Your task to perform on an android device: Search for vegetarian restaurants on Maps Image 0: 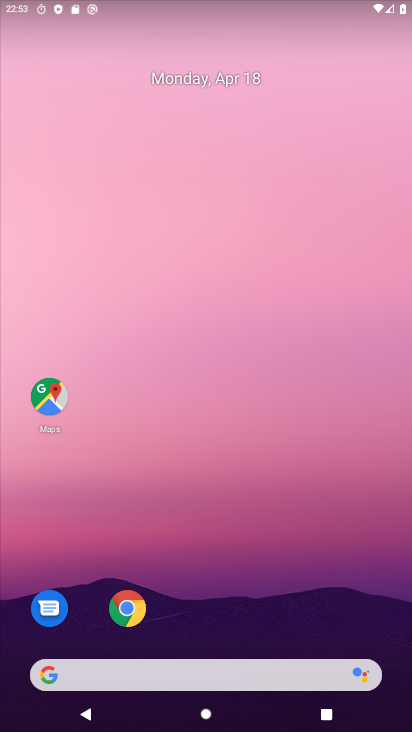
Step 0: click (46, 400)
Your task to perform on an android device: Search for vegetarian restaurants on Maps Image 1: 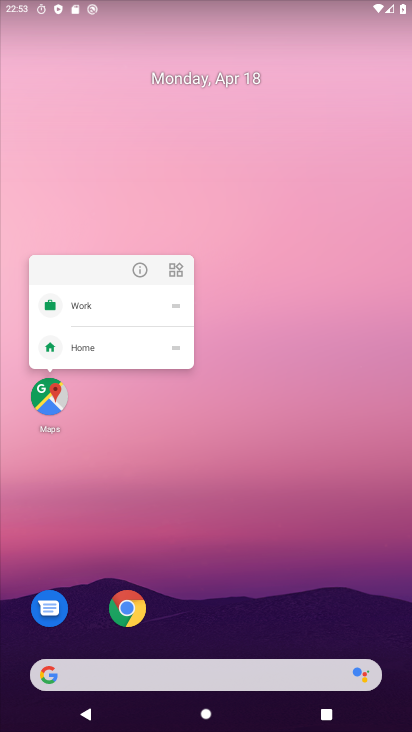
Step 1: click (188, 425)
Your task to perform on an android device: Search for vegetarian restaurants on Maps Image 2: 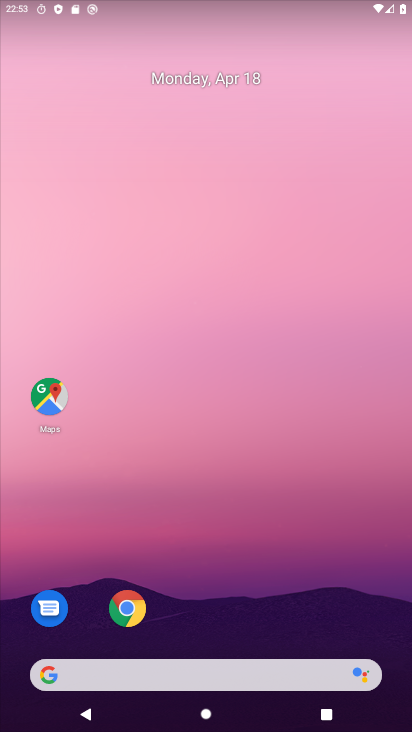
Step 2: click (47, 398)
Your task to perform on an android device: Search for vegetarian restaurants on Maps Image 3: 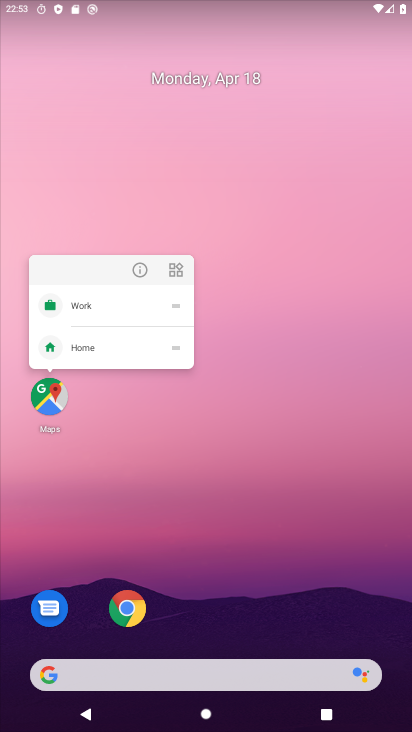
Step 3: click (138, 432)
Your task to perform on an android device: Search for vegetarian restaurants on Maps Image 4: 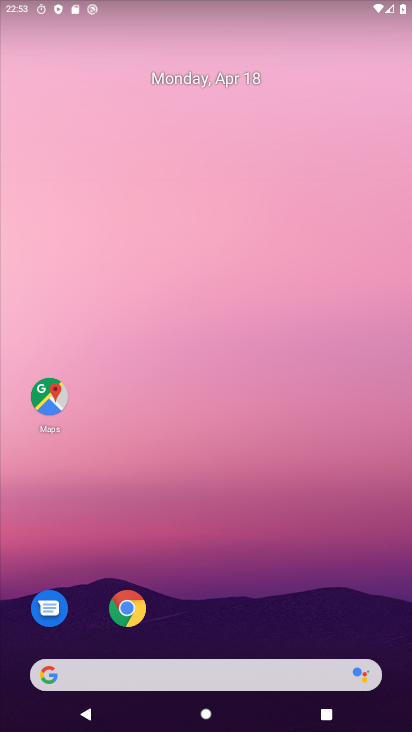
Step 4: click (49, 400)
Your task to perform on an android device: Search for vegetarian restaurants on Maps Image 5: 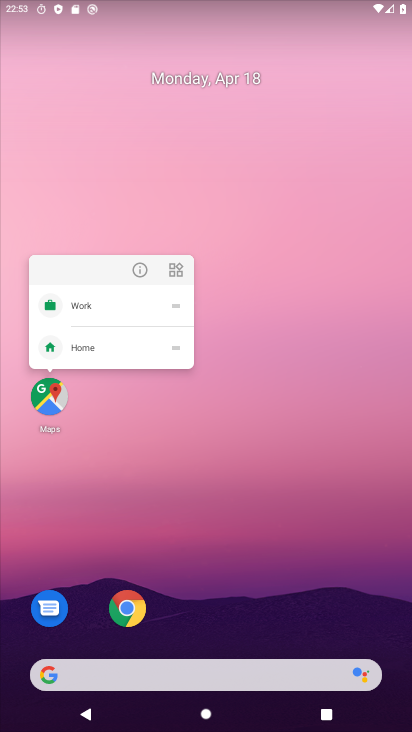
Step 5: click (173, 501)
Your task to perform on an android device: Search for vegetarian restaurants on Maps Image 6: 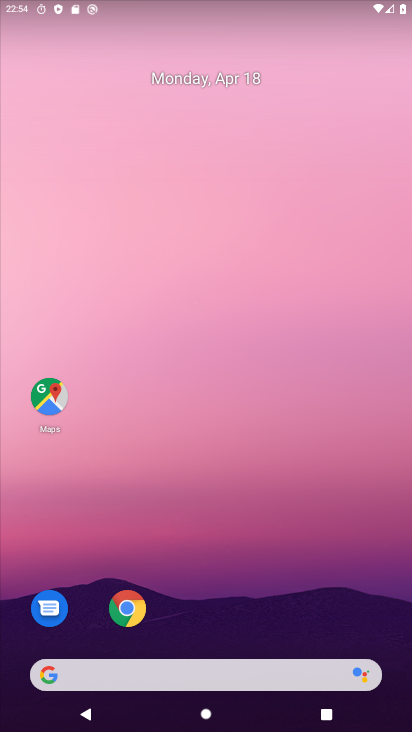
Step 6: click (47, 396)
Your task to perform on an android device: Search for vegetarian restaurants on Maps Image 7: 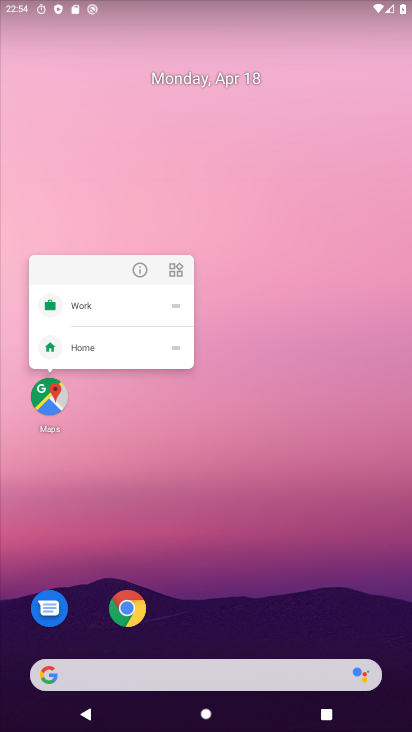
Step 7: click (167, 467)
Your task to perform on an android device: Search for vegetarian restaurants on Maps Image 8: 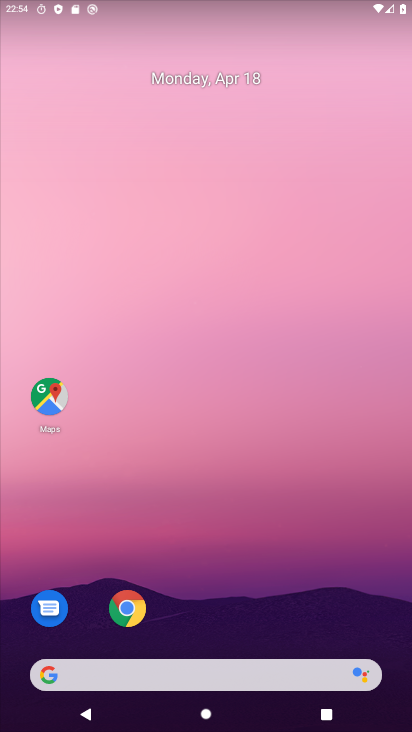
Step 8: click (57, 396)
Your task to perform on an android device: Search for vegetarian restaurants on Maps Image 9: 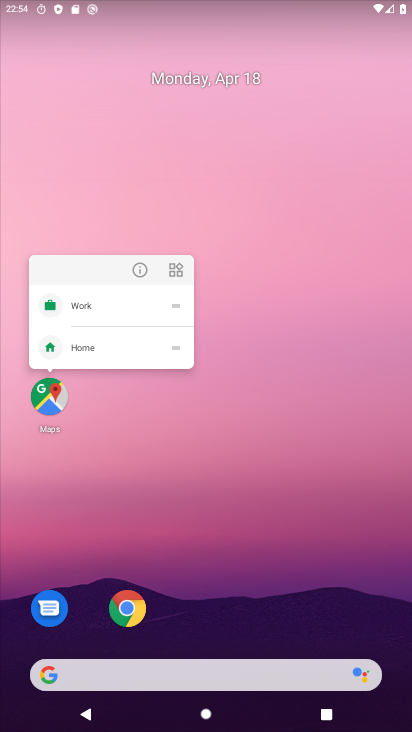
Step 9: click (46, 405)
Your task to perform on an android device: Search for vegetarian restaurants on Maps Image 10: 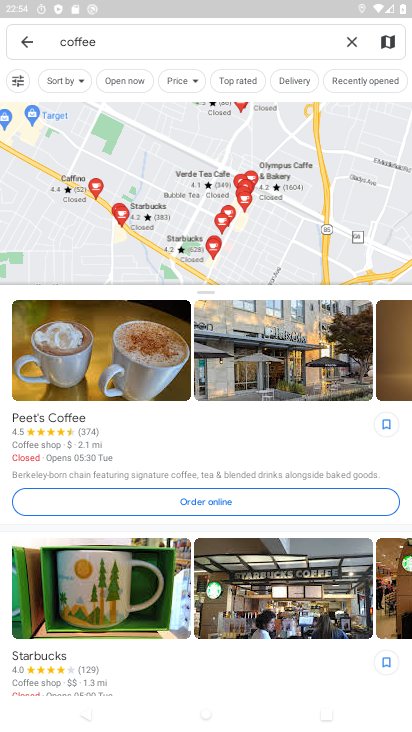
Step 10: click (348, 38)
Your task to perform on an android device: Search for vegetarian restaurants on Maps Image 11: 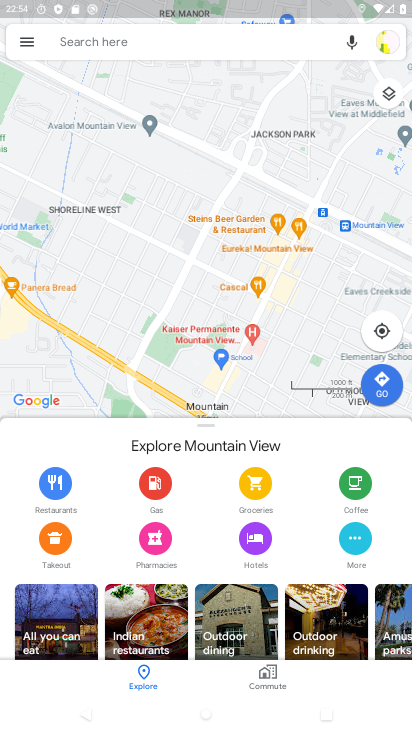
Step 11: click (146, 47)
Your task to perform on an android device: Search for vegetarian restaurants on Maps Image 12: 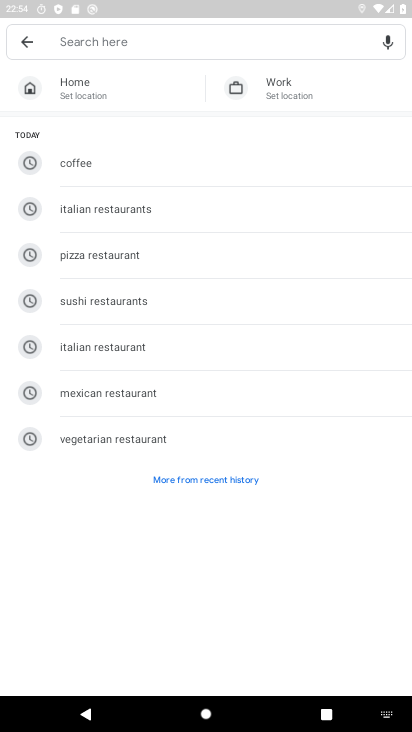
Step 12: click (117, 445)
Your task to perform on an android device: Search for vegetarian restaurants on Maps Image 13: 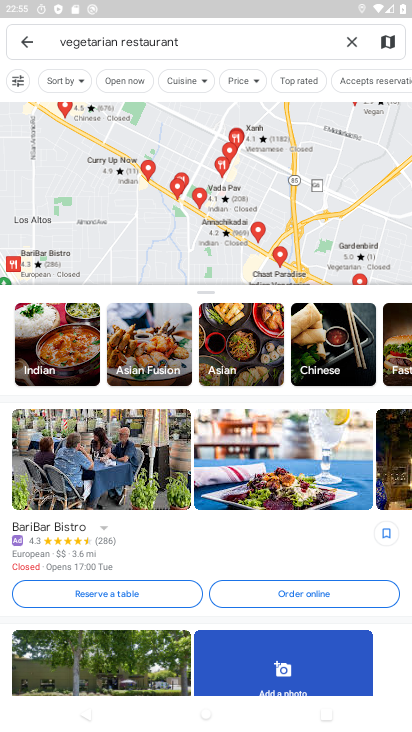
Step 13: task complete